Your task to perform on an android device: change alarm snooze length Image 0: 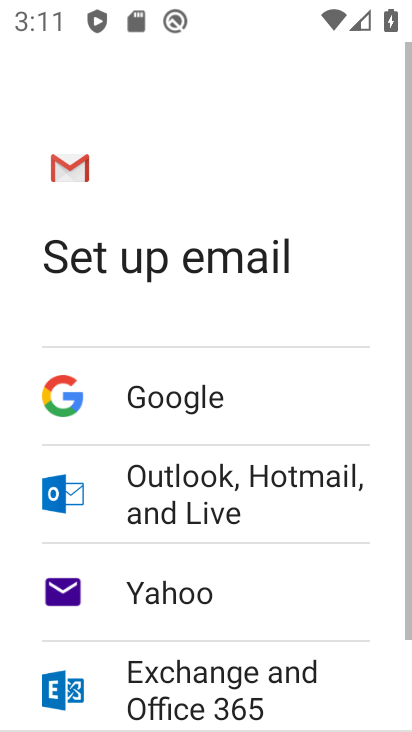
Step 0: press home button
Your task to perform on an android device: change alarm snooze length Image 1: 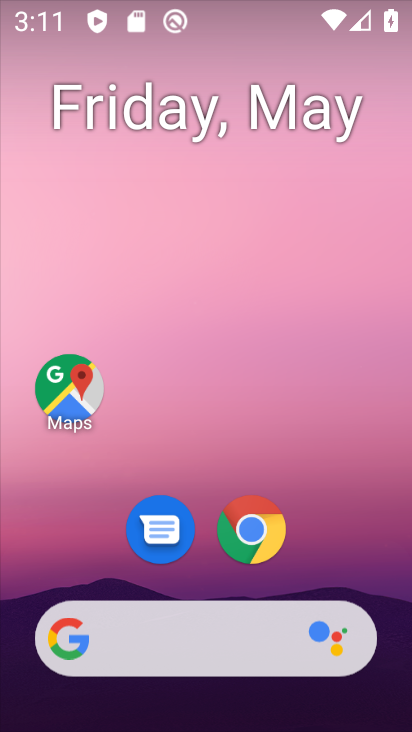
Step 1: drag from (205, 480) to (257, 103)
Your task to perform on an android device: change alarm snooze length Image 2: 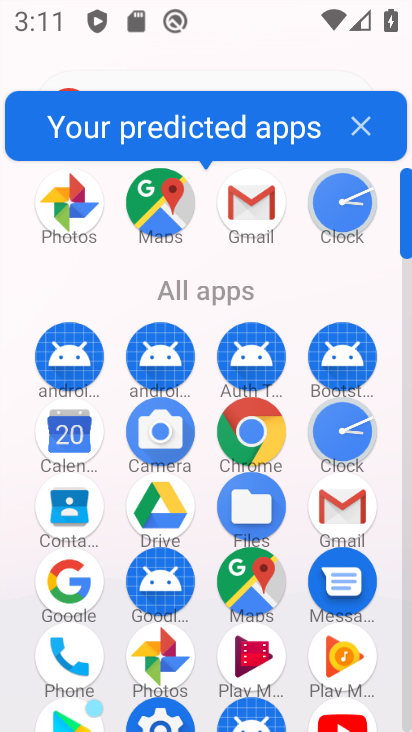
Step 2: drag from (270, 577) to (278, 163)
Your task to perform on an android device: change alarm snooze length Image 3: 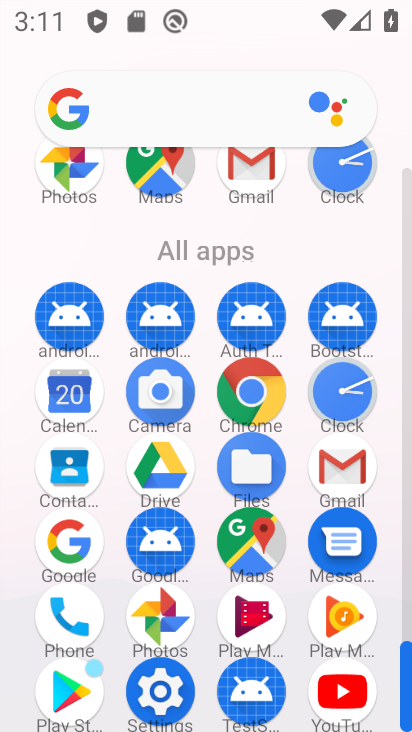
Step 3: click (189, 696)
Your task to perform on an android device: change alarm snooze length Image 4: 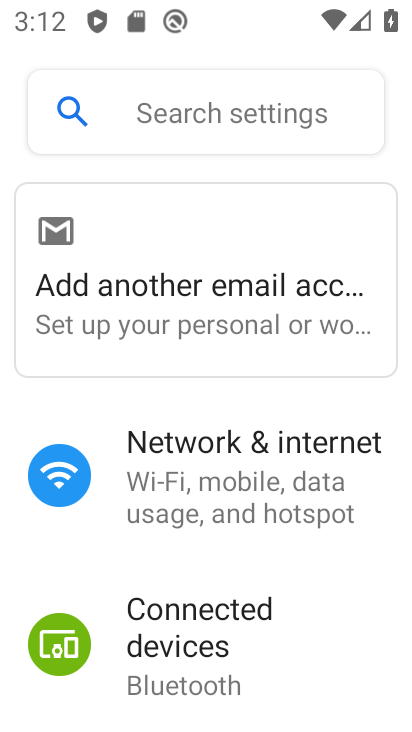
Step 4: drag from (255, 556) to (305, 238)
Your task to perform on an android device: change alarm snooze length Image 5: 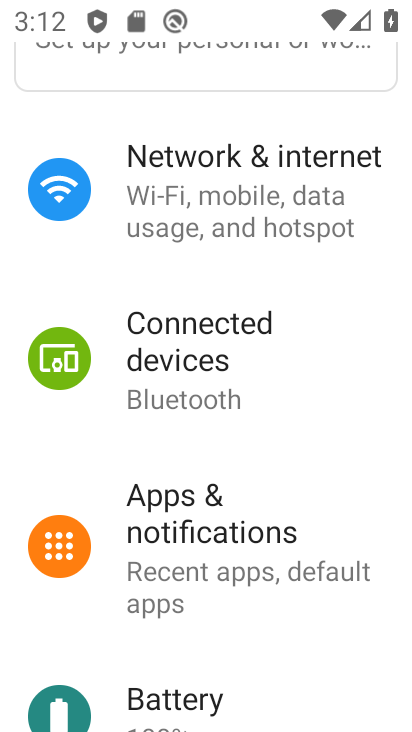
Step 5: press home button
Your task to perform on an android device: change alarm snooze length Image 6: 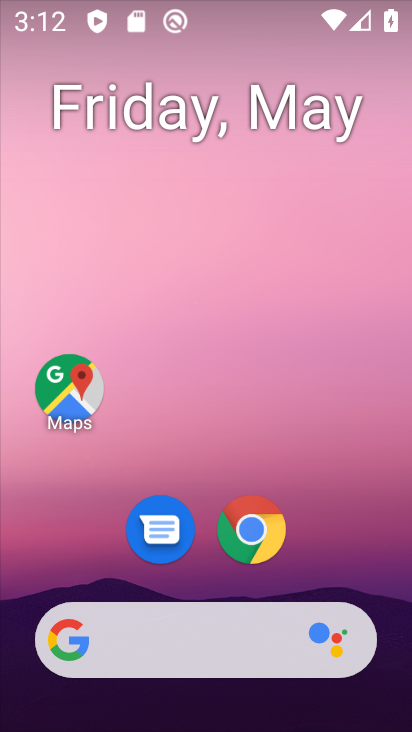
Step 6: drag from (275, 573) to (323, 77)
Your task to perform on an android device: change alarm snooze length Image 7: 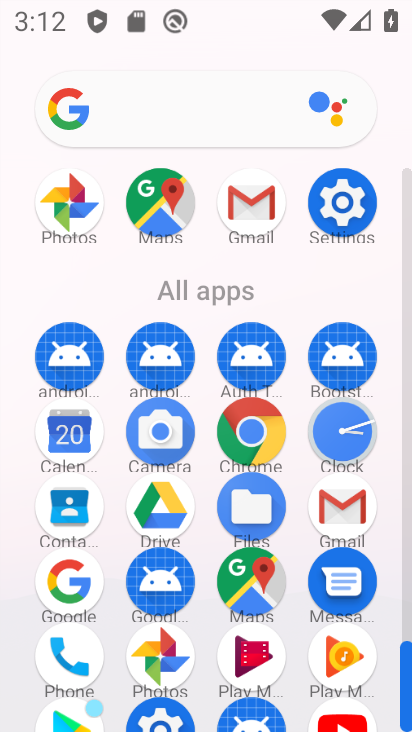
Step 7: click (343, 409)
Your task to perform on an android device: change alarm snooze length Image 8: 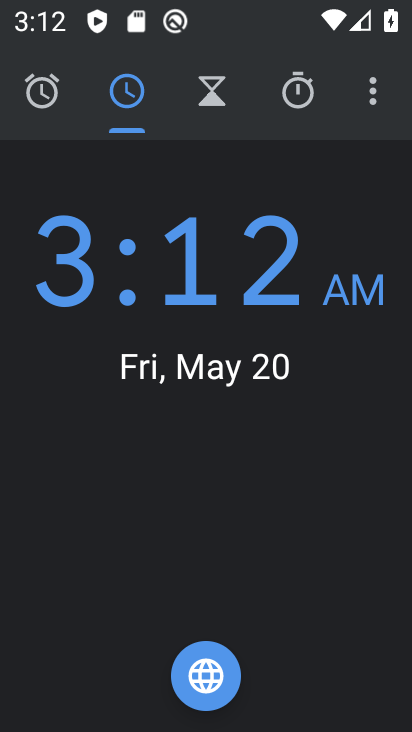
Step 8: click (364, 89)
Your task to perform on an android device: change alarm snooze length Image 9: 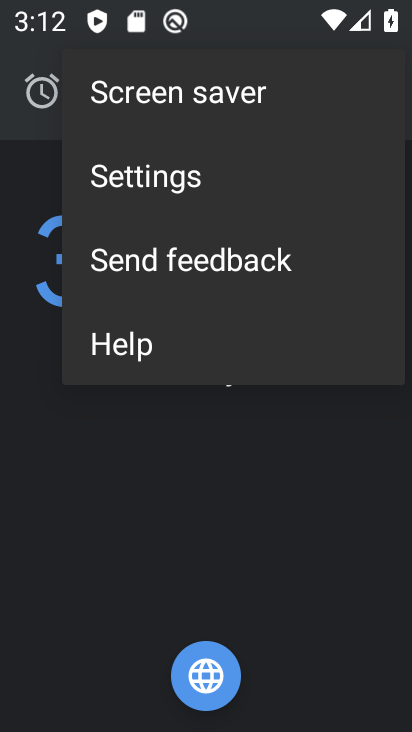
Step 9: click (176, 182)
Your task to perform on an android device: change alarm snooze length Image 10: 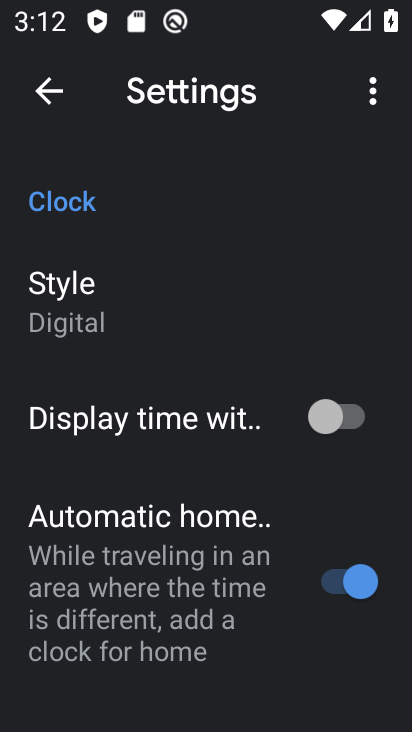
Step 10: drag from (134, 509) to (182, 116)
Your task to perform on an android device: change alarm snooze length Image 11: 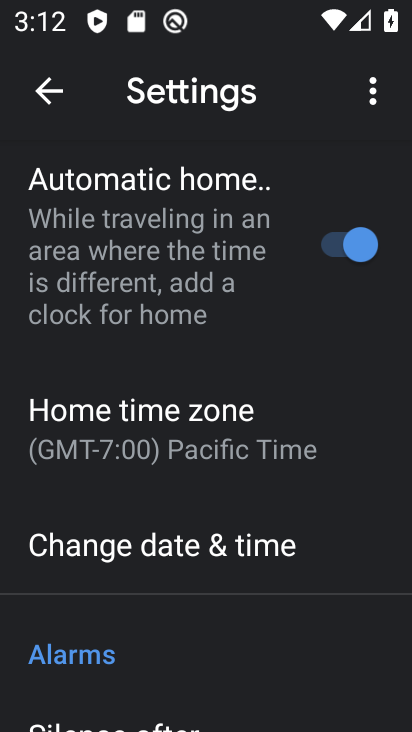
Step 11: drag from (165, 450) to (213, 145)
Your task to perform on an android device: change alarm snooze length Image 12: 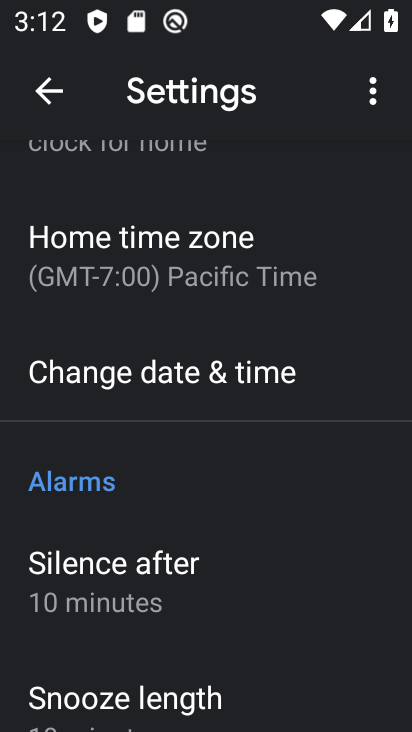
Step 12: drag from (190, 542) to (207, 250)
Your task to perform on an android device: change alarm snooze length Image 13: 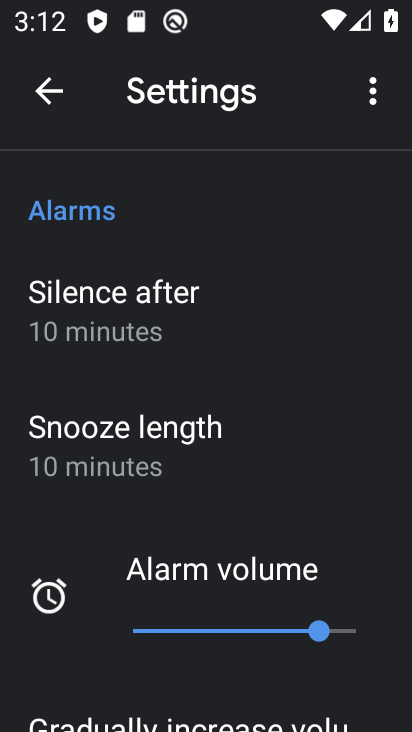
Step 13: drag from (149, 593) to (232, 207)
Your task to perform on an android device: change alarm snooze length Image 14: 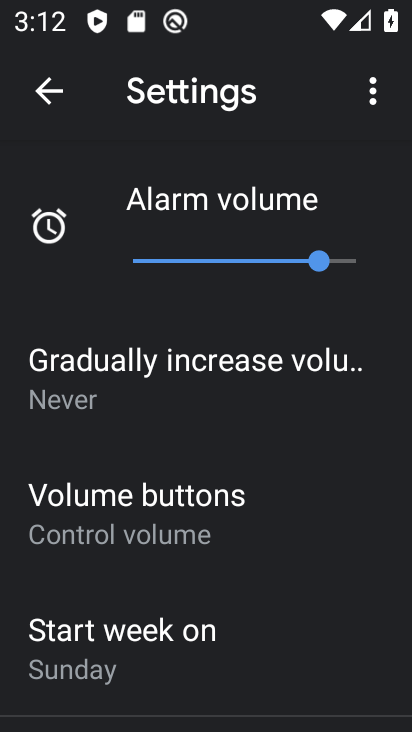
Step 14: drag from (191, 451) to (249, 238)
Your task to perform on an android device: change alarm snooze length Image 15: 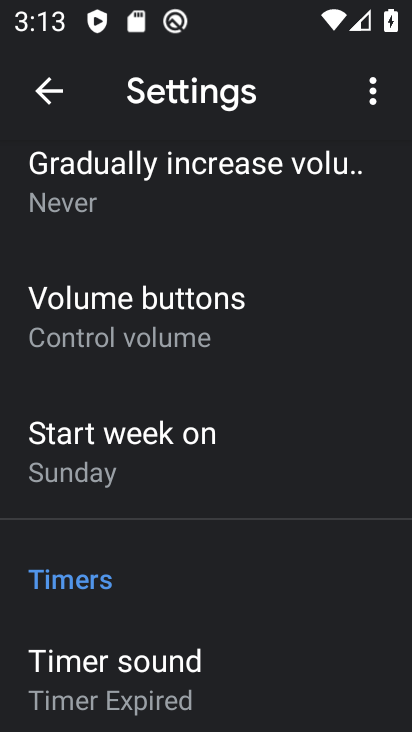
Step 15: drag from (185, 629) to (211, 389)
Your task to perform on an android device: change alarm snooze length Image 16: 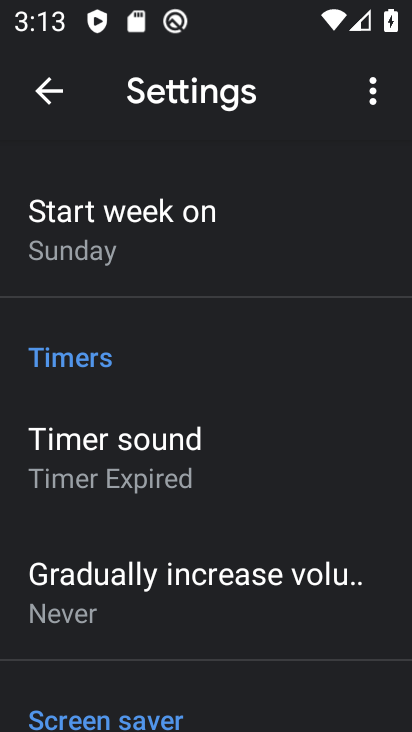
Step 16: drag from (154, 564) to (161, 642)
Your task to perform on an android device: change alarm snooze length Image 17: 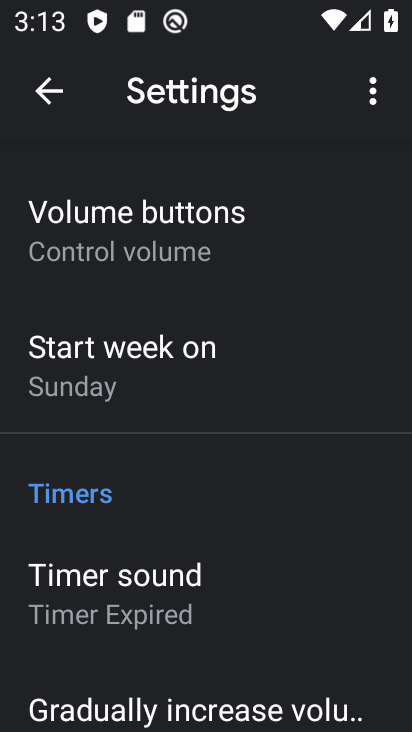
Step 17: drag from (155, 371) to (197, 729)
Your task to perform on an android device: change alarm snooze length Image 18: 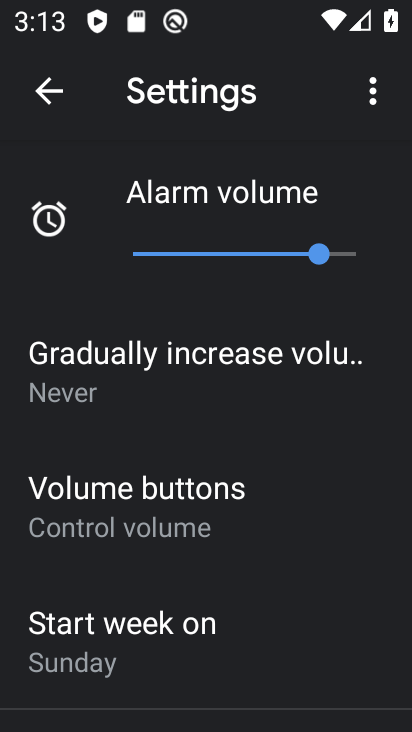
Step 18: drag from (235, 403) to (230, 695)
Your task to perform on an android device: change alarm snooze length Image 19: 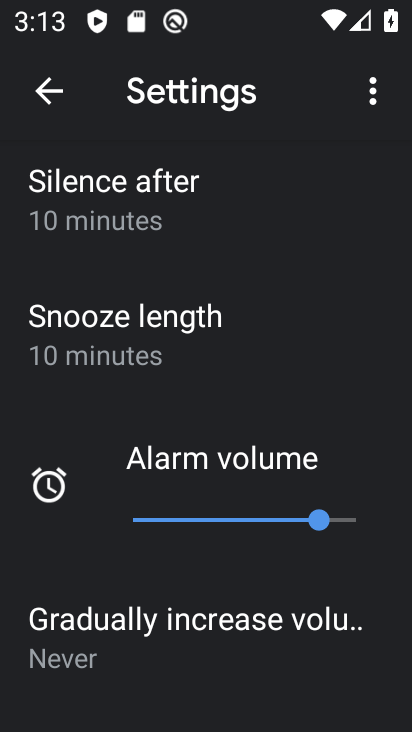
Step 19: click (177, 351)
Your task to perform on an android device: change alarm snooze length Image 20: 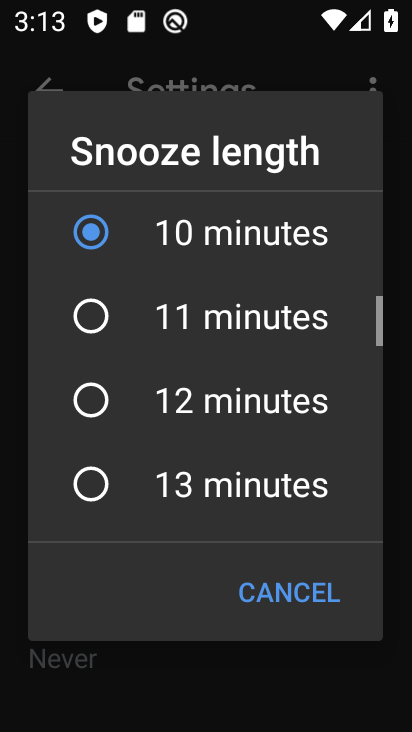
Step 20: click (177, 326)
Your task to perform on an android device: change alarm snooze length Image 21: 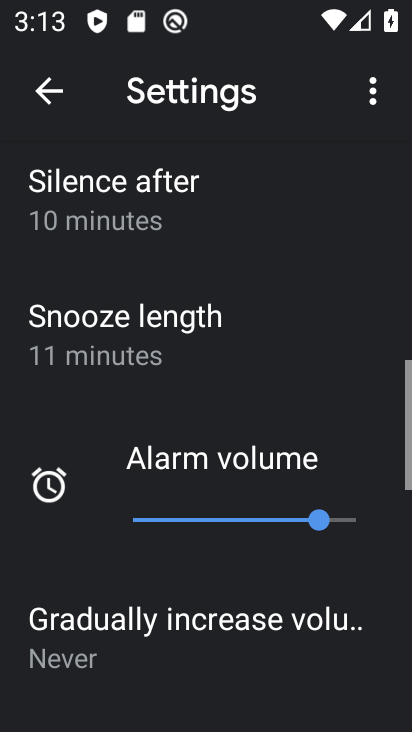
Step 21: task complete